Your task to perform on an android device: Find coffee shops on Maps Image 0: 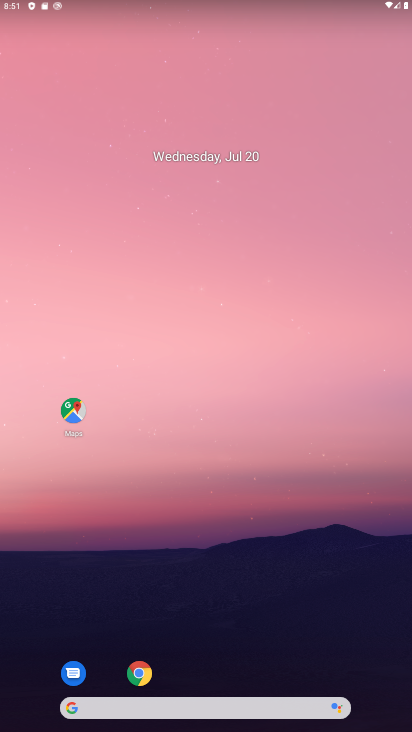
Step 0: click (81, 400)
Your task to perform on an android device: Find coffee shops on Maps Image 1: 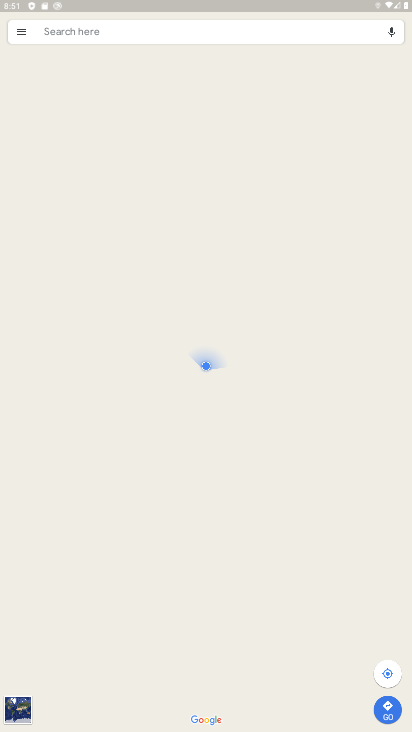
Step 1: click (161, 25)
Your task to perform on an android device: Find coffee shops on Maps Image 2: 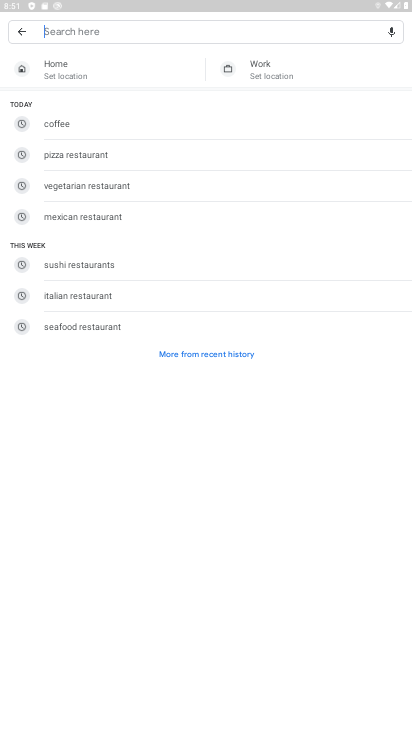
Step 2: click (71, 25)
Your task to perform on an android device: Find coffee shops on Maps Image 3: 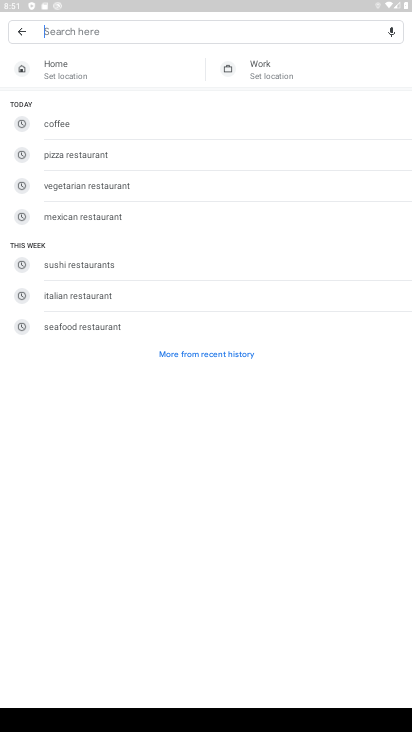
Step 3: type "coffee shops"
Your task to perform on an android device: Find coffee shops on Maps Image 4: 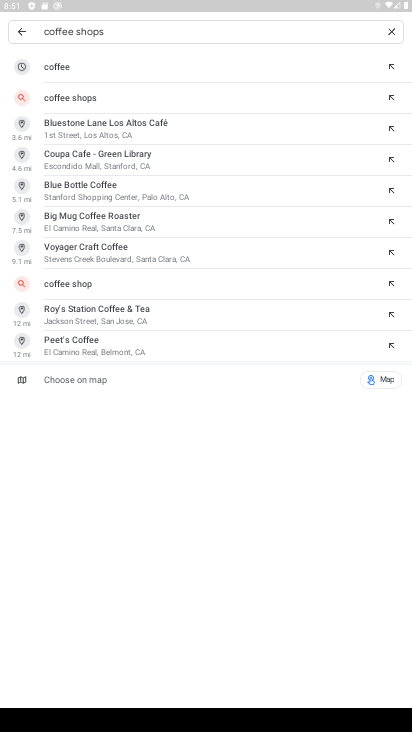
Step 4: click (110, 94)
Your task to perform on an android device: Find coffee shops on Maps Image 5: 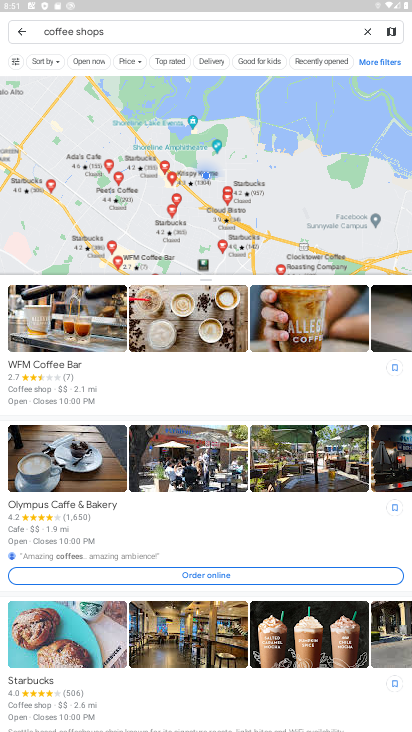
Step 5: task complete